Your task to perform on an android device: change the upload size in google photos Image 0: 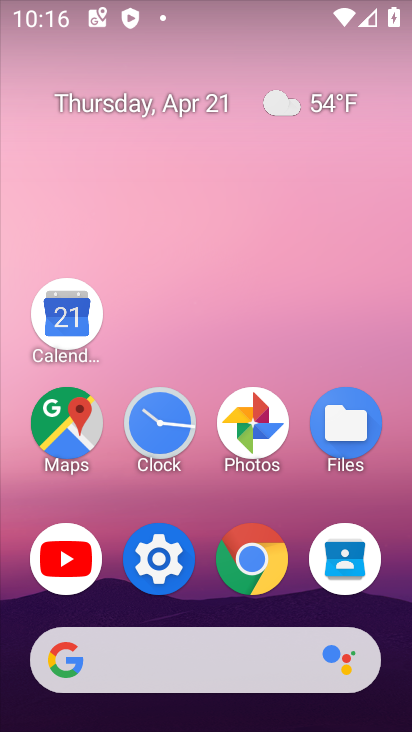
Step 0: click (253, 430)
Your task to perform on an android device: change the upload size in google photos Image 1: 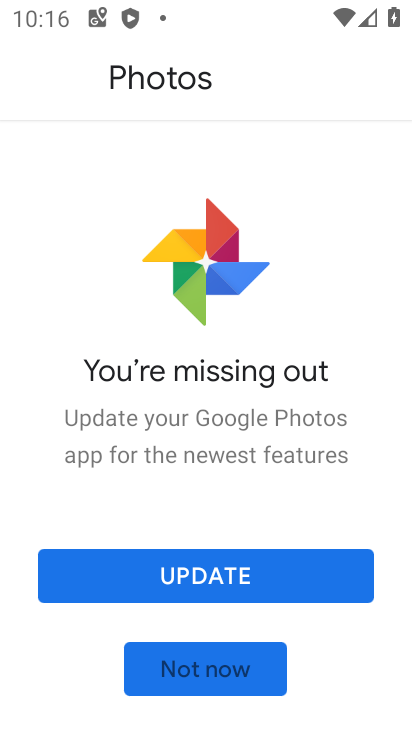
Step 1: click (220, 574)
Your task to perform on an android device: change the upload size in google photos Image 2: 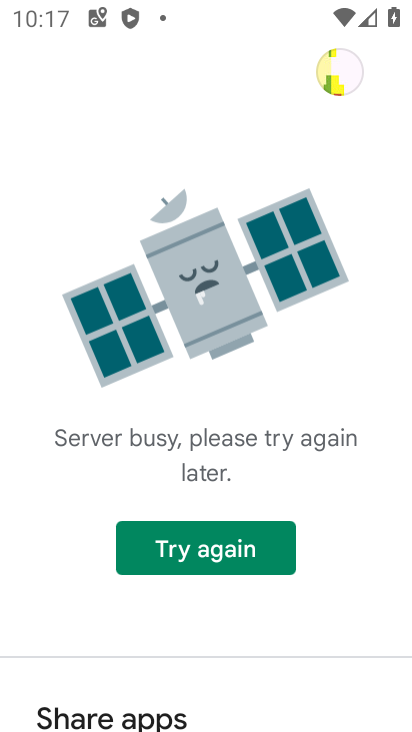
Step 2: click (198, 551)
Your task to perform on an android device: change the upload size in google photos Image 3: 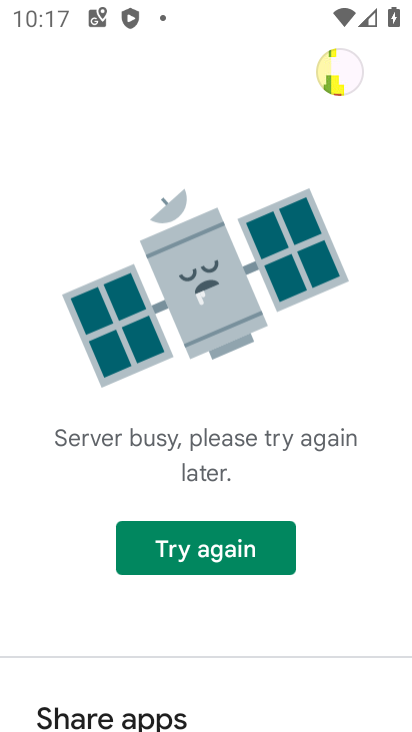
Step 3: click (198, 551)
Your task to perform on an android device: change the upload size in google photos Image 4: 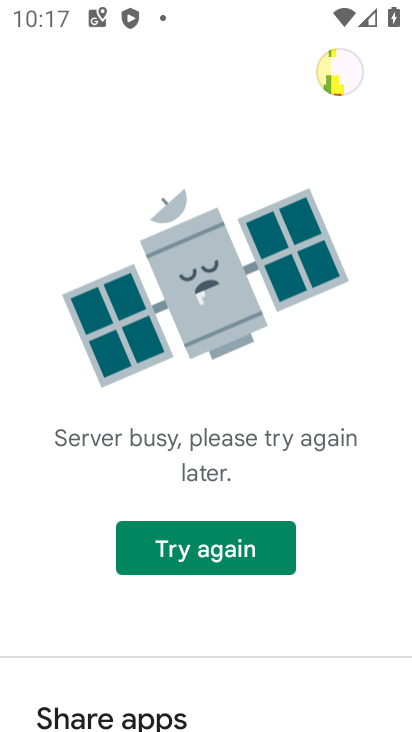
Step 4: click (198, 551)
Your task to perform on an android device: change the upload size in google photos Image 5: 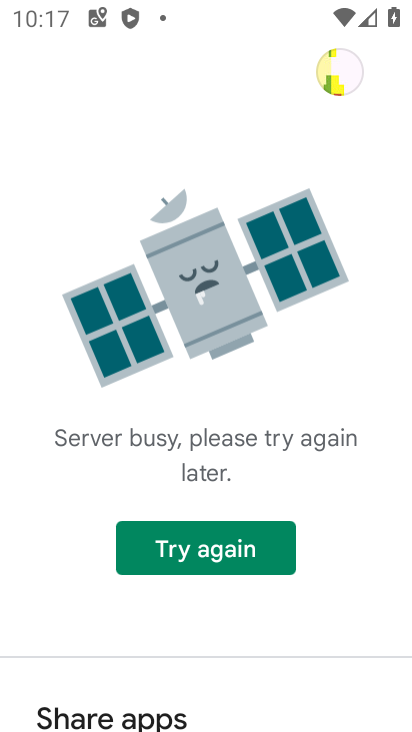
Step 5: click (198, 551)
Your task to perform on an android device: change the upload size in google photos Image 6: 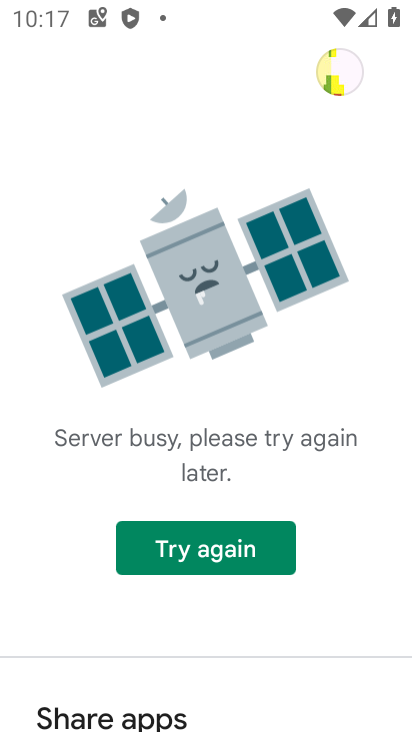
Step 6: click (198, 551)
Your task to perform on an android device: change the upload size in google photos Image 7: 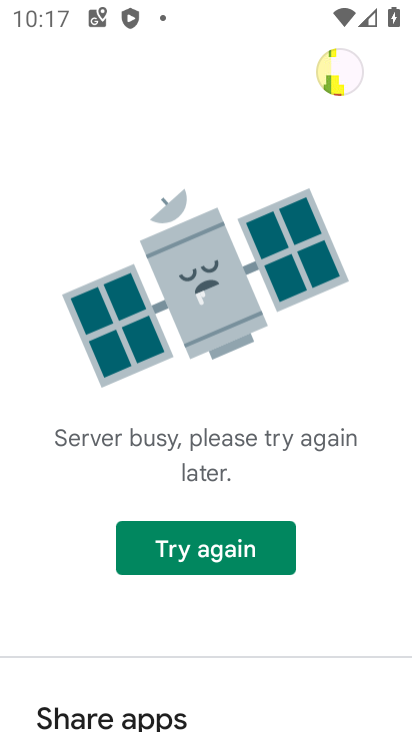
Step 7: click (198, 551)
Your task to perform on an android device: change the upload size in google photos Image 8: 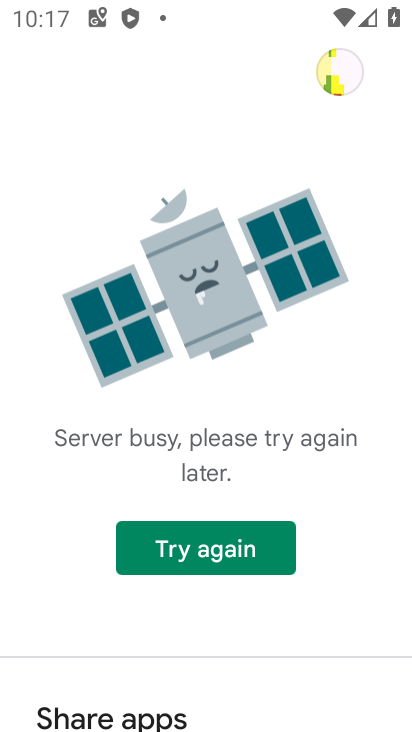
Step 8: click (198, 551)
Your task to perform on an android device: change the upload size in google photos Image 9: 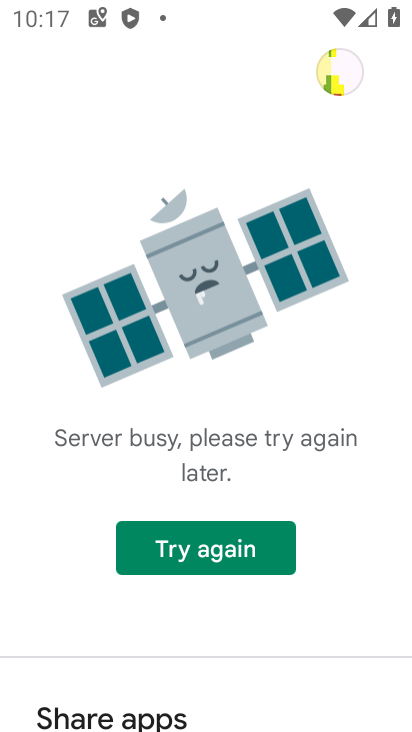
Step 9: click (198, 551)
Your task to perform on an android device: change the upload size in google photos Image 10: 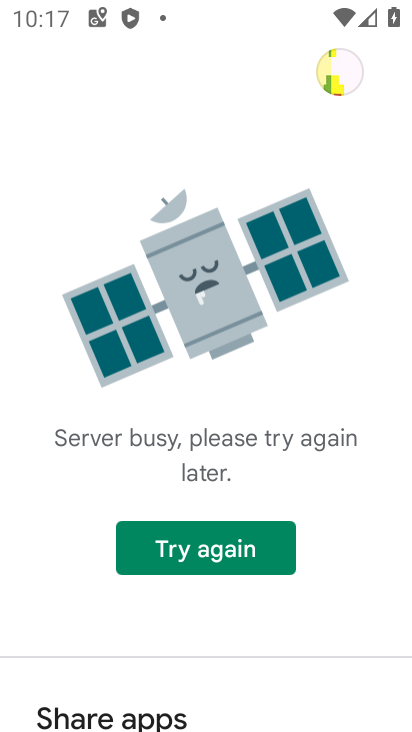
Step 10: click (198, 551)
Your task to perform on an android device: change the upload size in google photos Image 11: 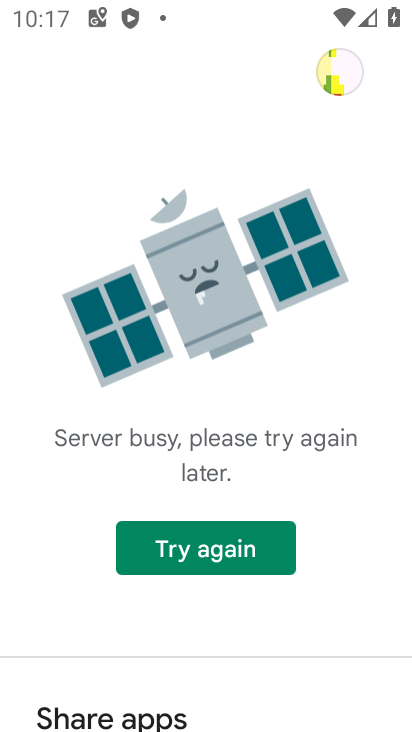
Step 11: click (198, 551)
Your task to perform on an android device: change the upload size in google photos Image 12: 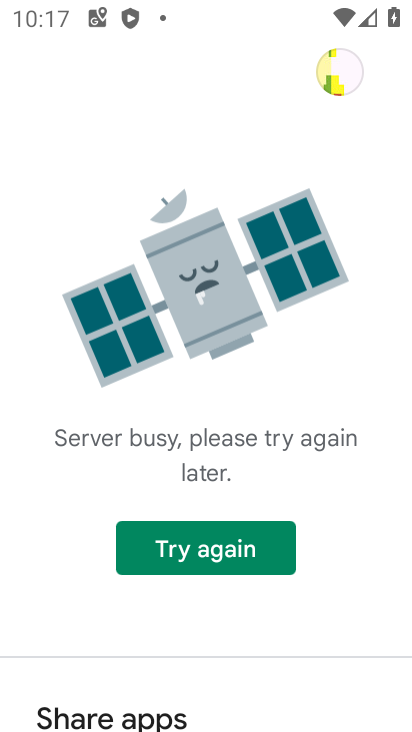
Step 12: task complete